Your task to perform on an android device: open app "Mercado Libre" Image 0: 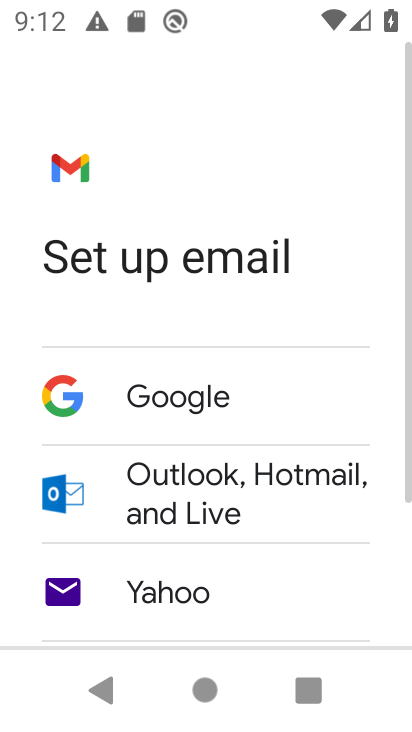
Step 0: press home button
Your task to perform on an android device: open app "Mercado Libre" Image 1: 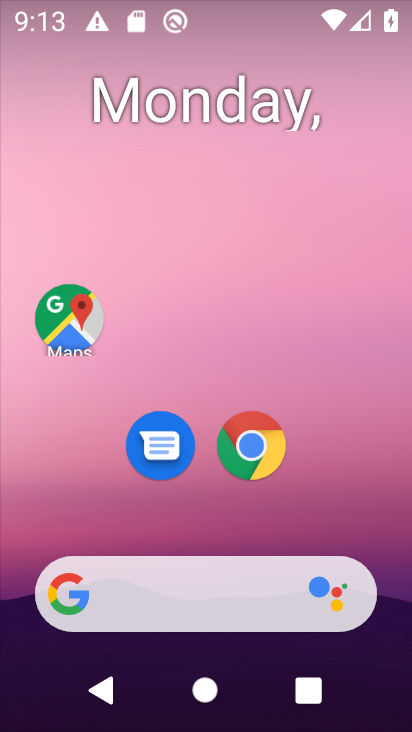
Step 1: drag from (366, 633) to (226, 0)
Your task to perform on an android device: open app "Mercado Libre" Image 2: 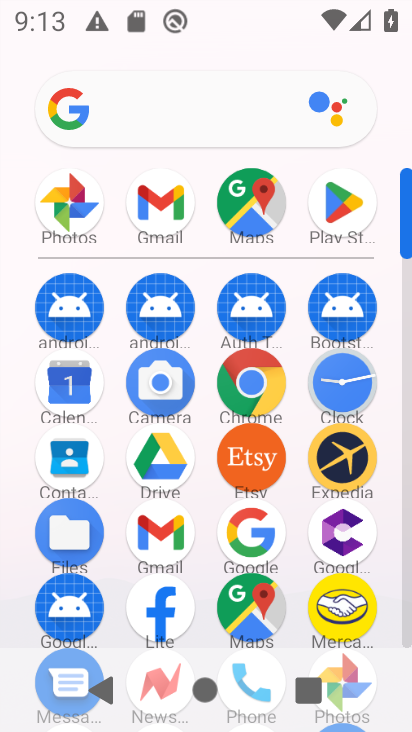
Step 2: click (322, 227)
Your task to perform on an android device: open app "Mercado Libre" Image 3: 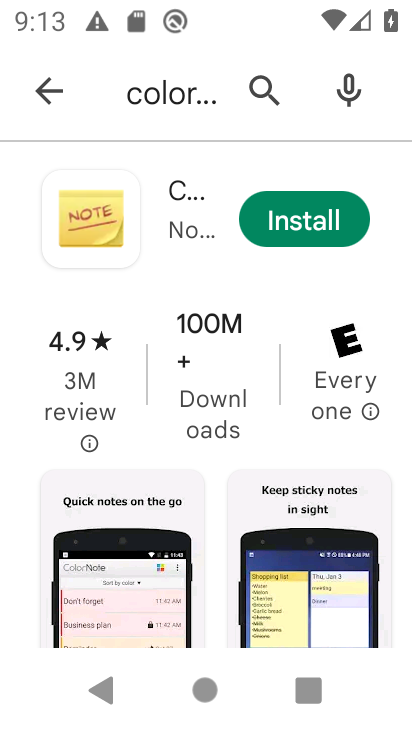
Step 3: press back button
Your task to perform on an android device: open app "Mercado Libre" Image 4: 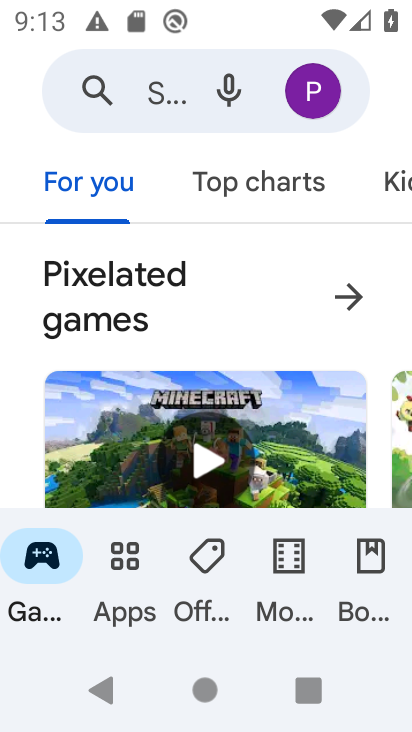
Step 4: click (155, 96)
Your task to perform on an android device: open app "Mercado Libre" Image 5: 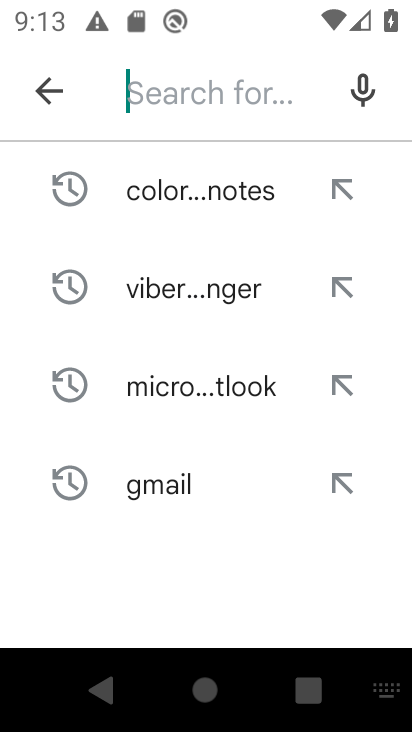
Step 5: type "Mercado Libre"
Your task to perform on an android device: open app "Mercado Libre" Image 6: 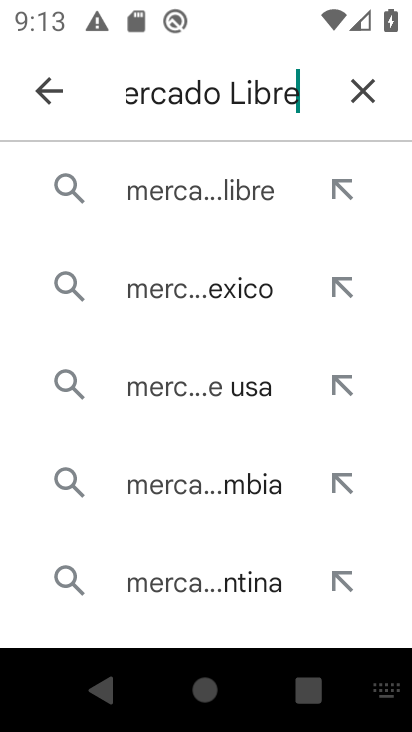
Step 6: click (193, 214)
Your task to perform on an android device: open app "Mercado Libre" Image 7: 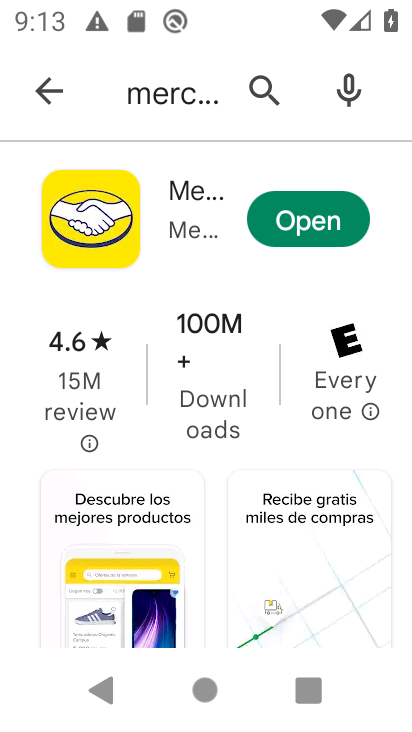
Step 7: click (294, 207)
Your task to perform on an android device: open app "Mercado Libre" Image 8: 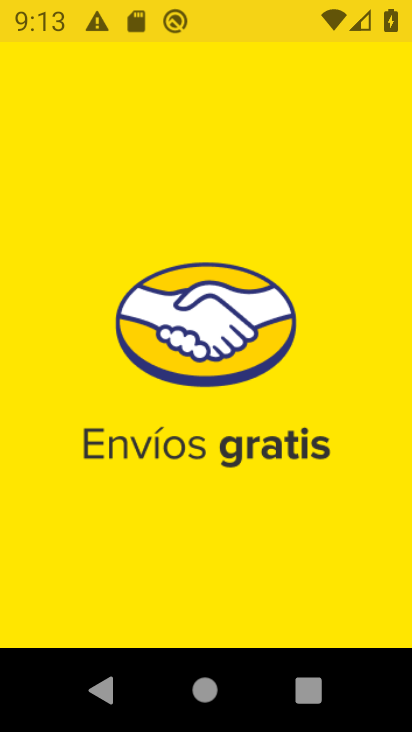
Step 8: task complete